Your task to perform on an android device: move a message to another label in the gmail app Image 0: 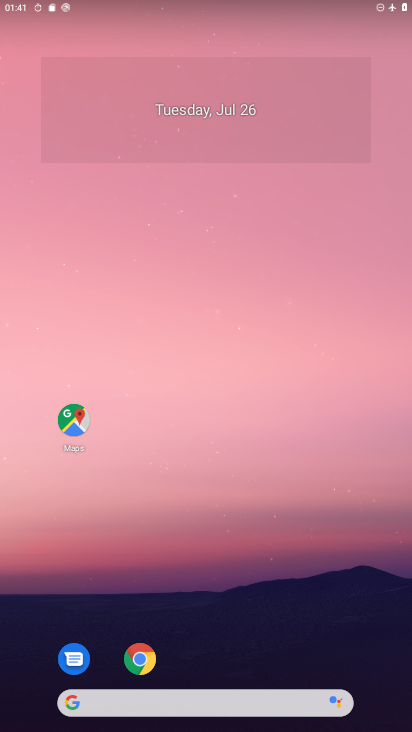
Step 0: drag from (258, 51) to (218, 30)
Your task to perform on an android device: move a message to another label in the gmail app Image 1: 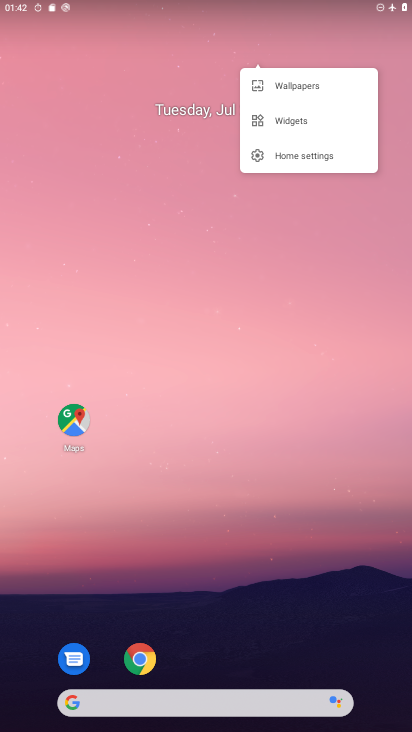
Step 1: drag from (171, 115) to (171, 2)
Your task to perform on an android device: move a message to another label in the gmail app Image 2: 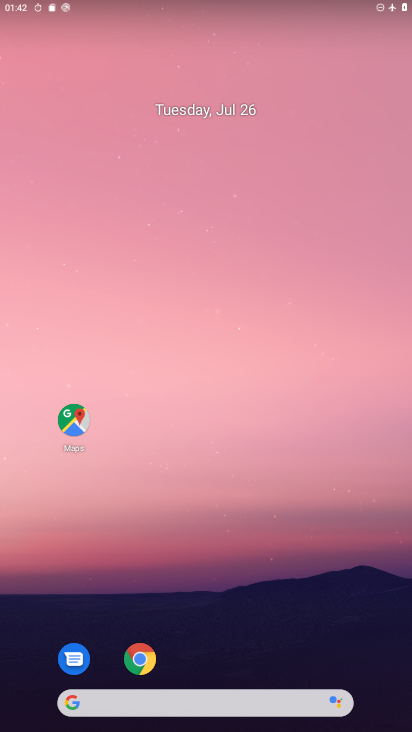
Step 2: drag from (44, 660) to (152, 103)
Your task to perform on an android device: move a message to another label in the gmail app Image 3: 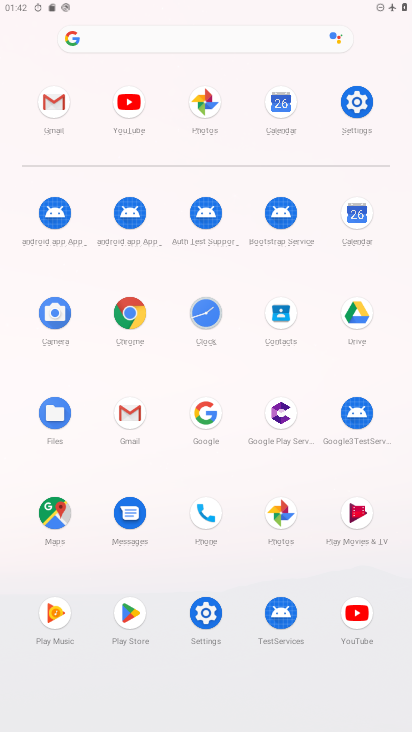
Step 3: click (124, 110)
Your task to perform on an android device: move a message to another label in the gmail app Image 4: 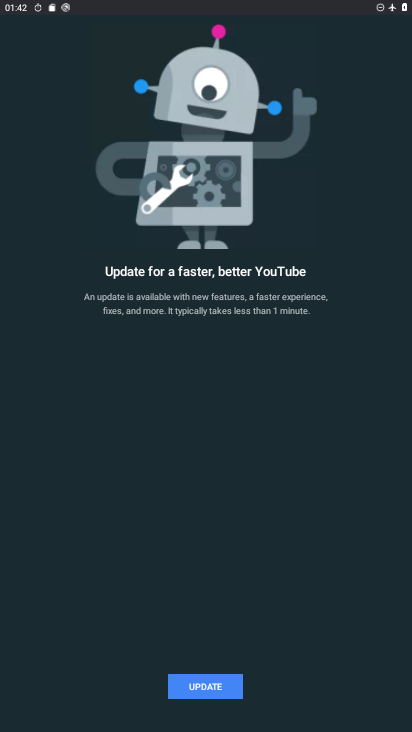
Step 4: press home button
Your task to perform on an android device: move a message to another label in the gmail app Image 5: 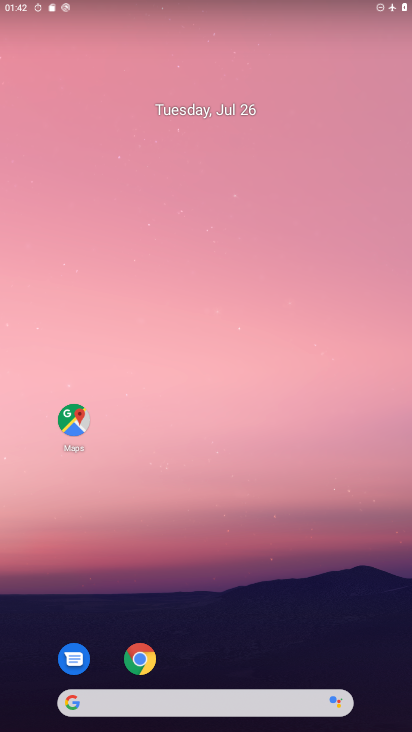
Step 5: drag from (27, 678) to (205, 249)
Your task to perform on an android device: move a message to another label in the gmail app Image 6: 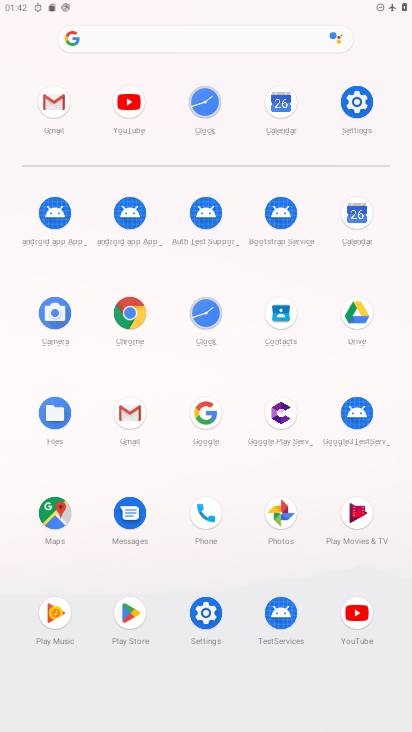
Step 6: click (54, 81)
Your task to perform on an android device: move a message to another label in the gmail app Image 7: 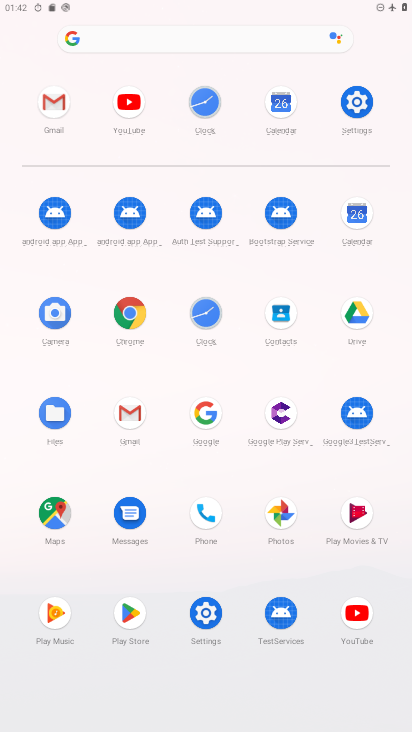
Step 7: click (48, 100)
Your task to perform on an android device: move a message to another label in the gmail app Image 8: 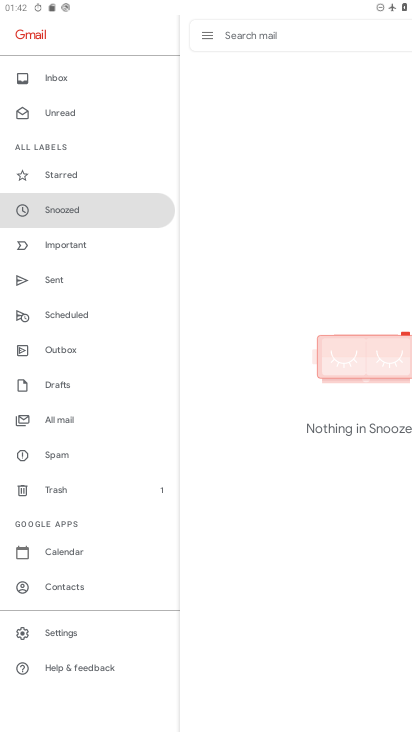
Step 8: click (59, 82)
Your task to perform on an android device: move a message to another label in the gmail app Image 9: 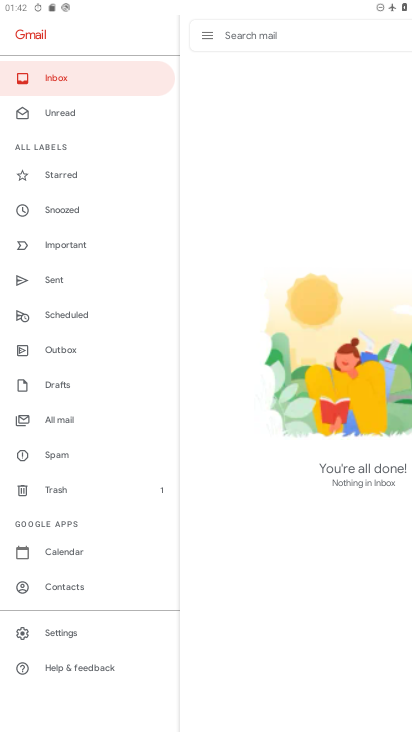
Step 9: task complete